Your task to perform on an android device: Open CNN.com Image 0: 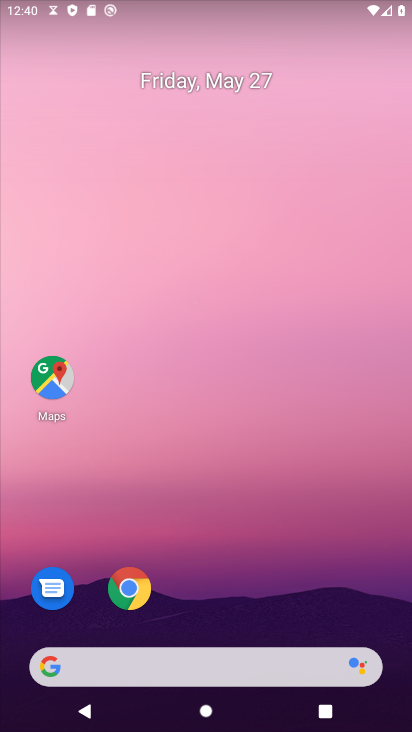
Step 0: press home button
Your task to perform on an android device: Open CNN.com Image 1: 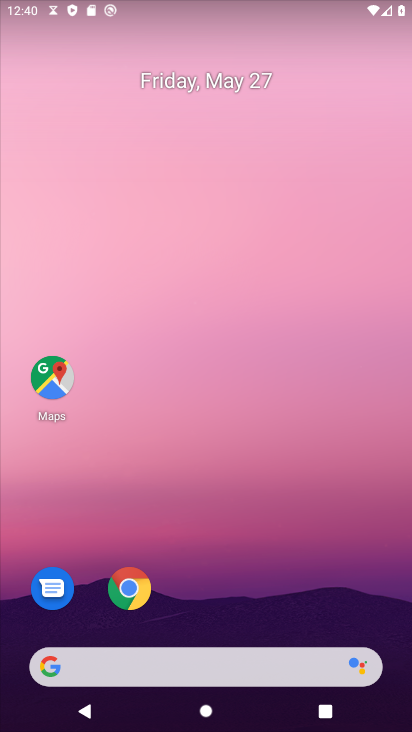
Step 1: click (128, 581)
Your task to perform on an android device: Open CNN.com Image 2: 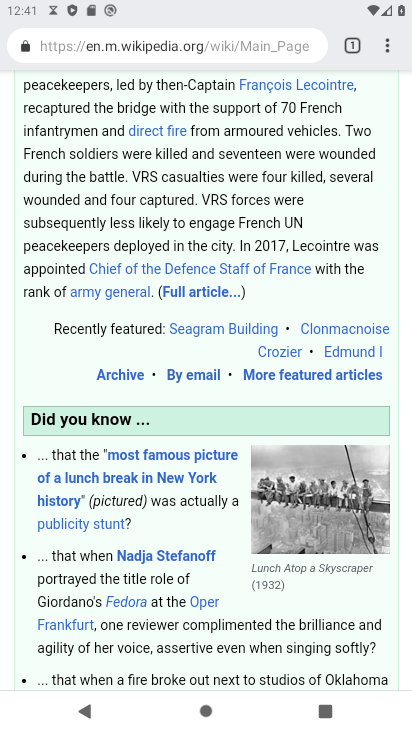
Step 2: click (353, 36)
Your task to perform on an android device: Open CNN.com Image 3: 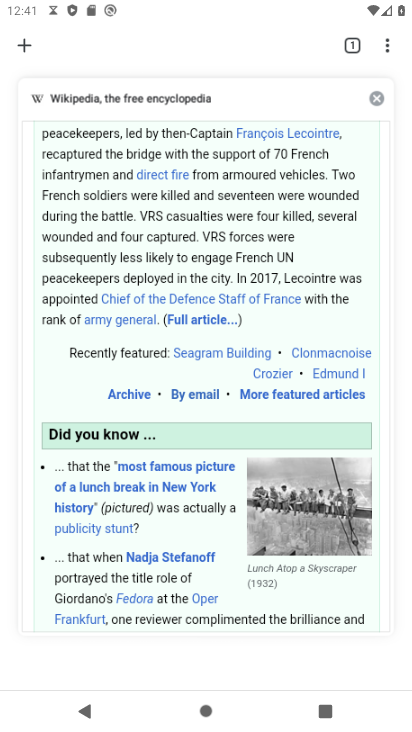
Step 3: click (379, 99)
Your task to perform on an android device: Open CNN.com Image 4: 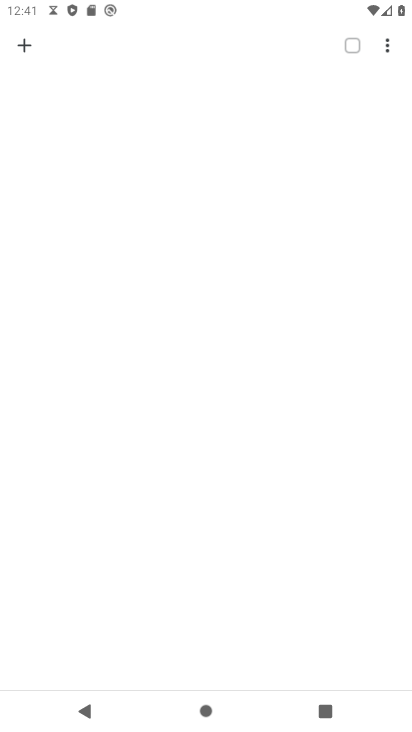
Step 4: click (26, 43)
Your task to perform on an android device: Open CNN.com Image 5: 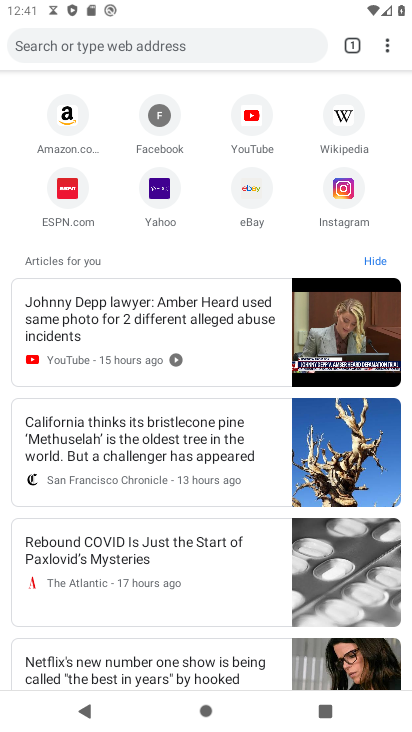
Step 5: click (147, 33)
Your task to perform on an android device: Open CNN.com Image 6: 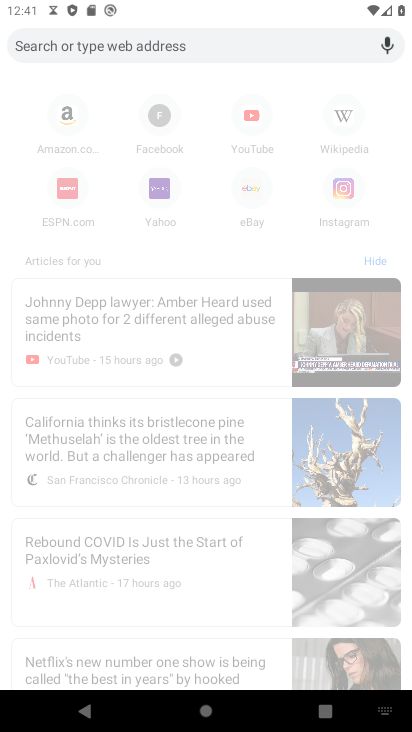
Step 6: type "cnn.com"
Your task to perform on an android device: Open CNN.com Image 7: 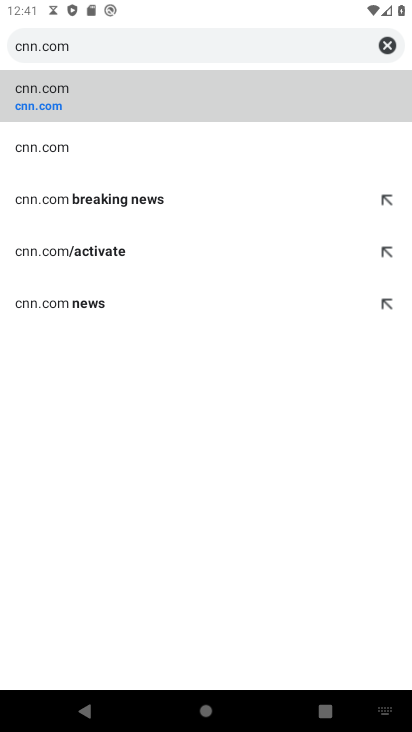
Step 7: click (85, 91)
Your task to perform on an android device: Open CNN.com Image 8: 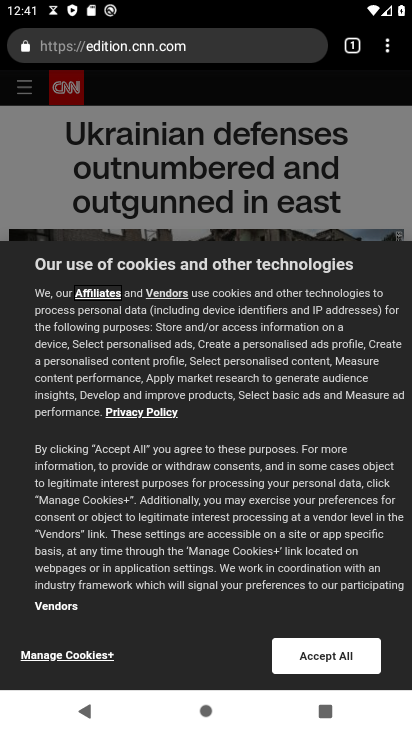
Step 8: click (338, 652)
Your task to perform on an android device: Open CNN.com Image 9: 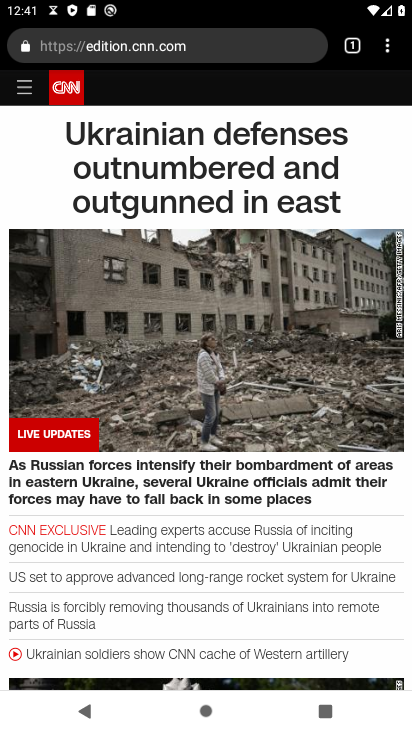
Step 9: task complete